Your task to perform on an android device: toggle data saver in the chrome app Image 0: 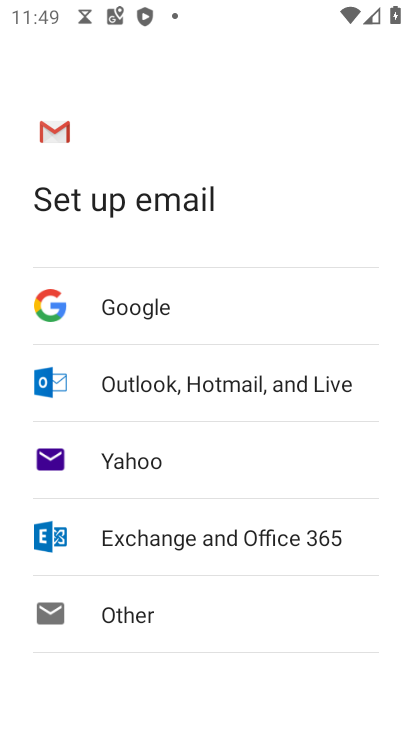
Step 0: press home button
Your task to perform on an android device: toggle data saver in the chrome app Image 1: 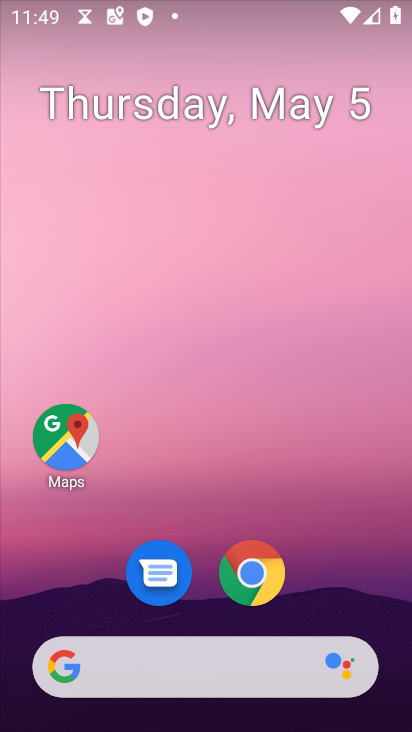
Step 1: drag from (362, 594) to (328, 268)
Your task to perform on an android device: toggle data saver in the chrome app Image 2: 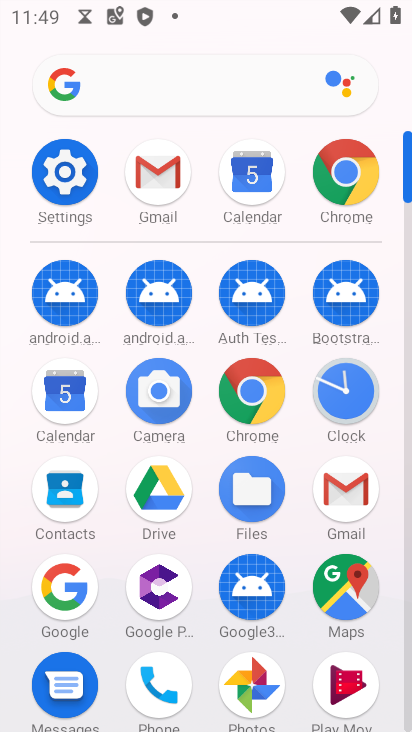
Step 2: click (247, 387)
Your task to perform on an android device: toggle data saver in the chrome app Image 3: 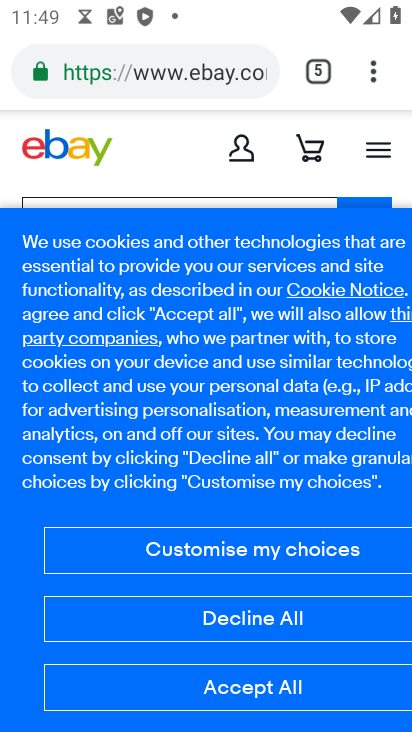
Step 3: click (367, 66)
Your task to perform on an android device: toggle data saver in the chrome app Image 4: 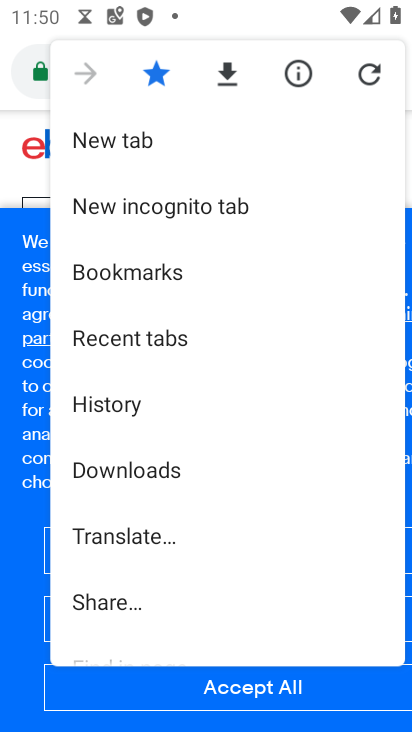
Step 4: drag from (216, 588) to (213, 296)
Your task to perform on an android device: toggle data saver in the chrome app Image 5: 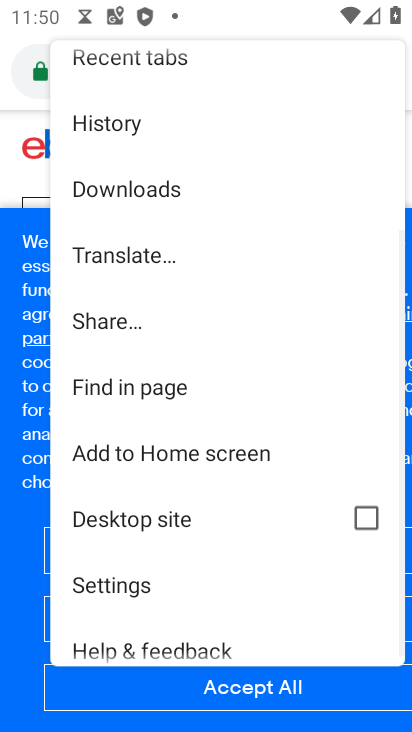
Step 5: click (147, 591)
Your task to perform on an android device: toggle data saver in the chrome app Image 6: 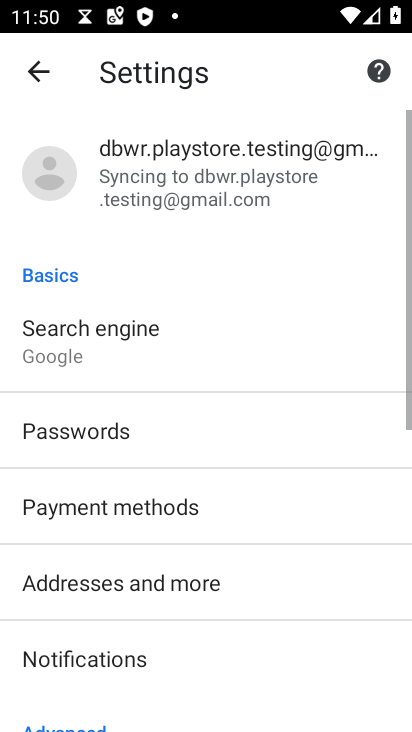
Step 6: drag from (160, 659) to (192, 269)
Your task to perform on an android device: toggle data saver in the chrome app Image 7: 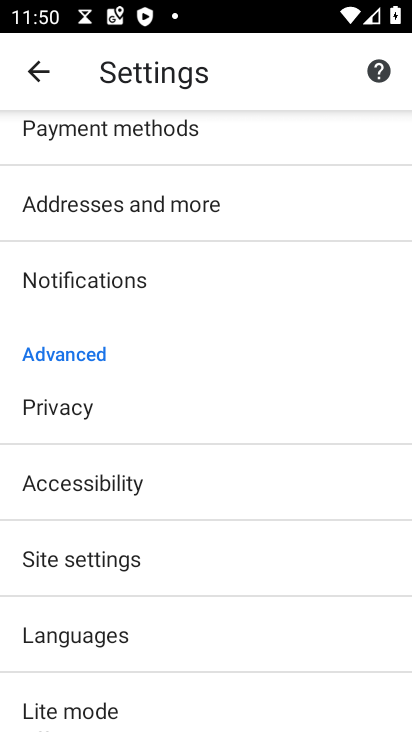
Step 7: drag from (156, 697) to (221, 344)
Your task to perform on an android device: toggle data saver in the chrome app Image 8: 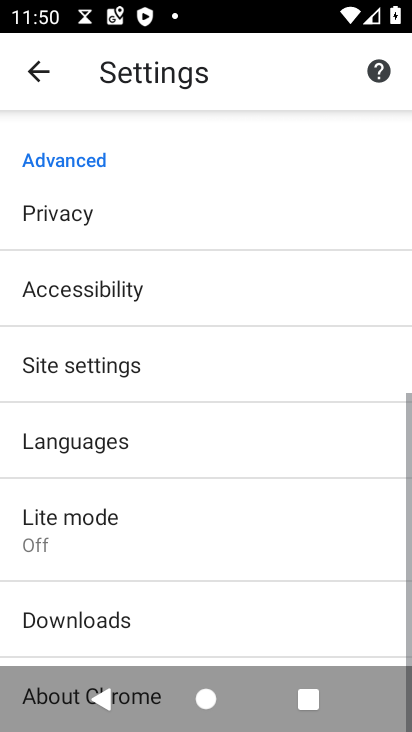
Step 8: click (162, 541)
Your task to perform on an android device: toggle data saver in the chrome app Image 9: 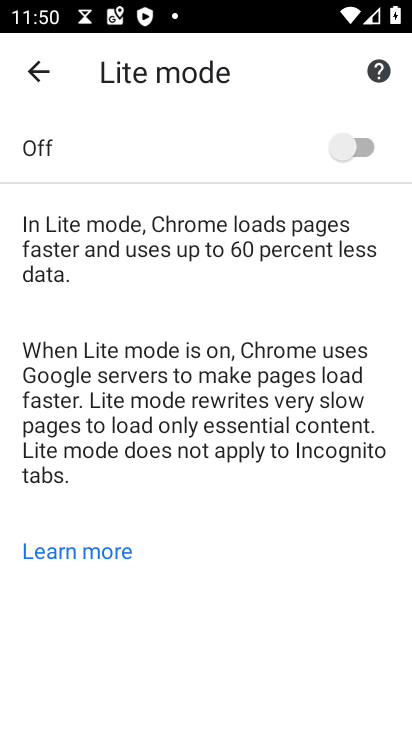
Step 9: click (369, 138)
Your task to perform on an android device: toggle data saver in the chrome app Image 10: 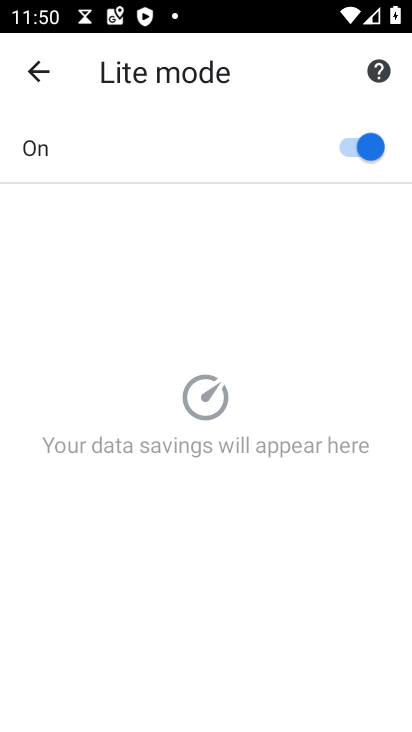
Step 10: task complete